Your task to perform on an android device: Go to Reddit.com Image 0: 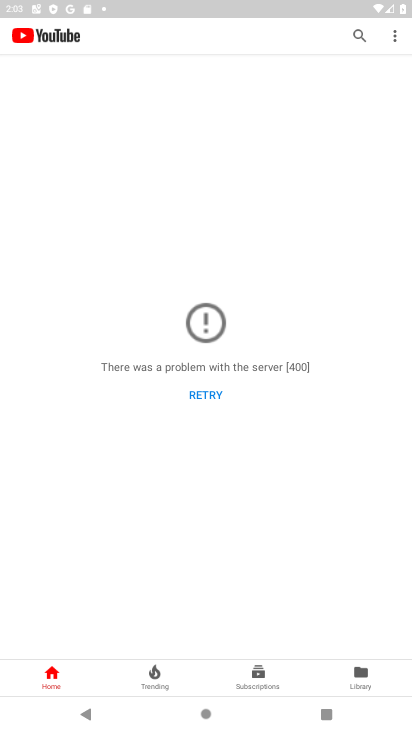
Step 0: press home button
Your task to perform on an android device: Go to Reddit.com Image 1: 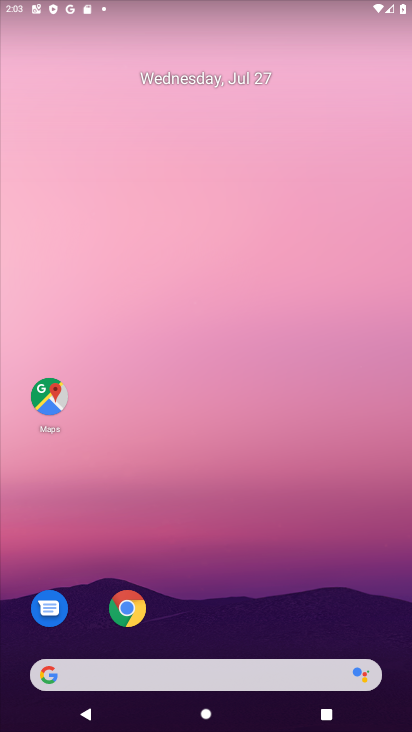
Step 1: click (125, 686)
Your task to perform on an android device: Go to Reddit.com Image 2: 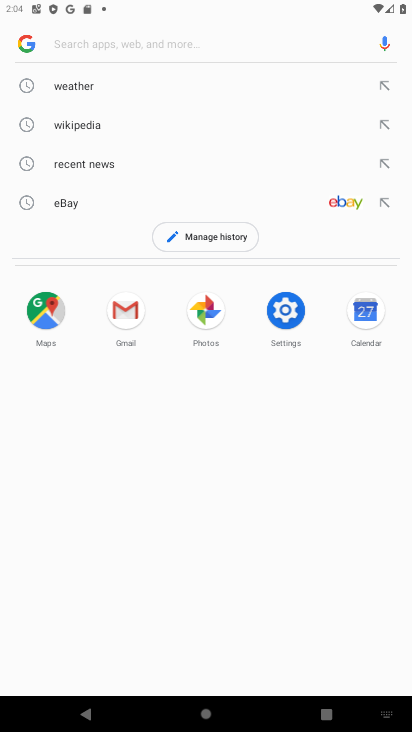
Step 2: type "Reddit.com"
Your task to perform on an android device: Go to Reddit.com Image 3: 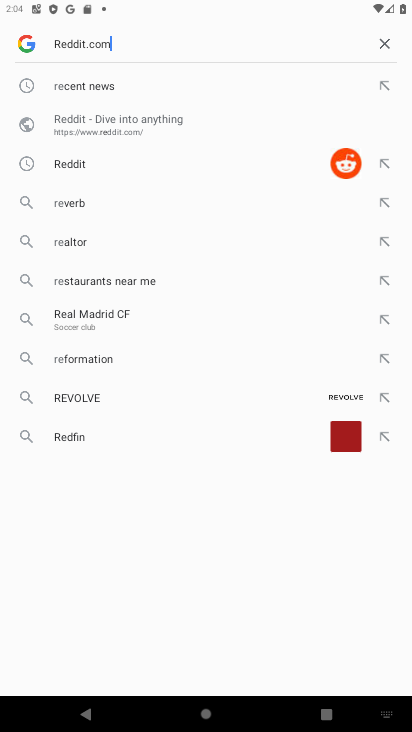
Step 3: type ""
Your task to perform on an android device: Go to Reddit.com Image 4: 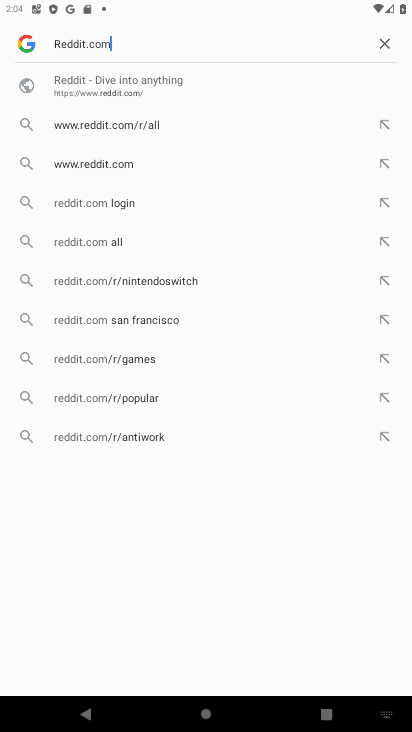
Step 4: task complete